Your task to perform on an android device: Go to settings Image 0: 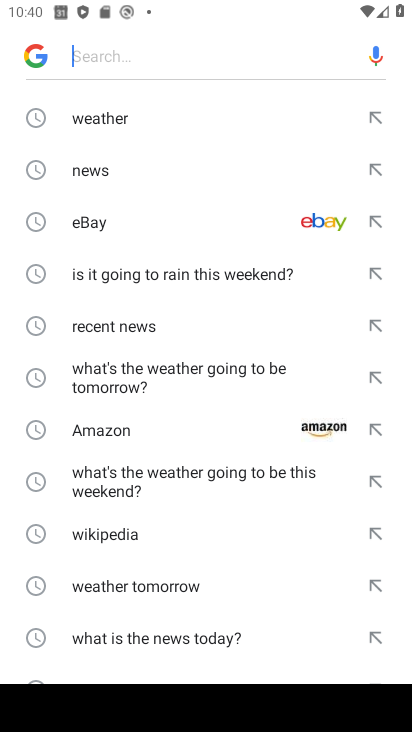
Step 0: press home button
Your task to perform on an android device: Go to settings Image 1: 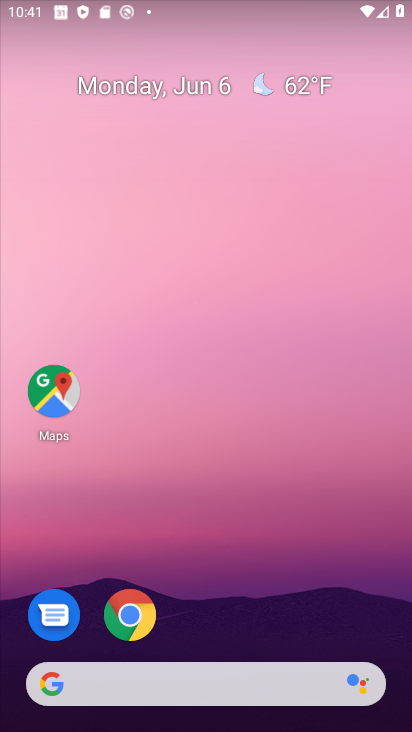
Step 1: drag from (207, 664) to (148, 88)
Your task to perform on an android device: Go to settings Image 2: 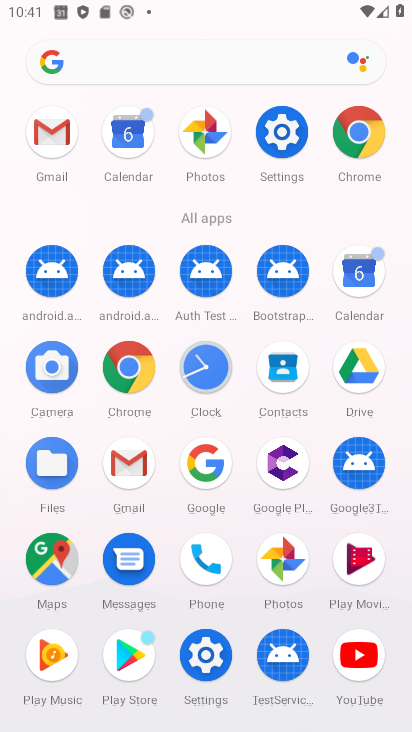
Step 2: click (267, 146)
Your task to perform on an android device: Go to settings Image 3: 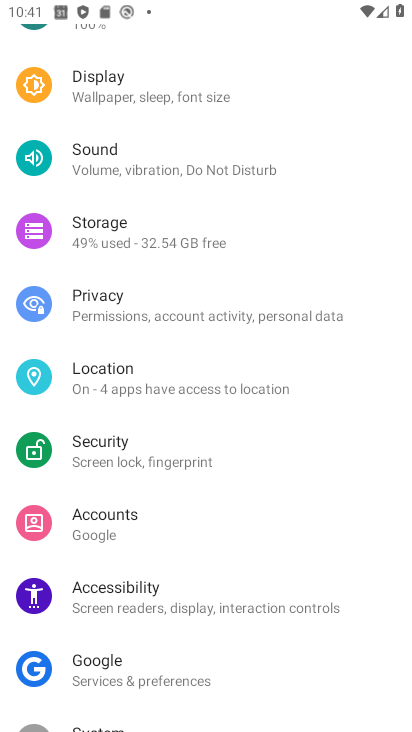
Step 3: task complete